Your task to perform on an android device: turn on location history Image 0: 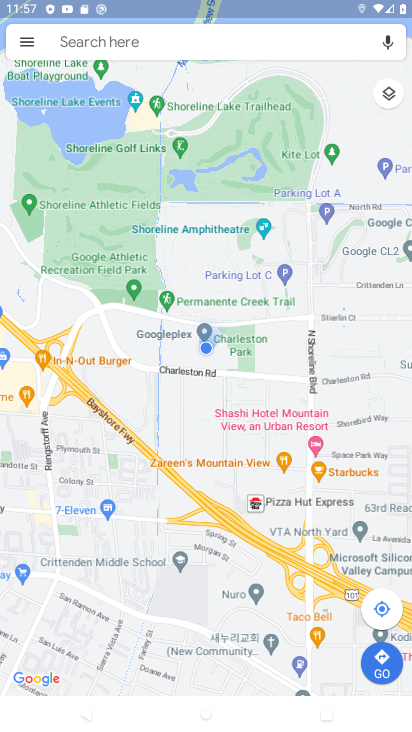
Step 0: press back button
Your task to perform on an android device: turn on location history Image 1: 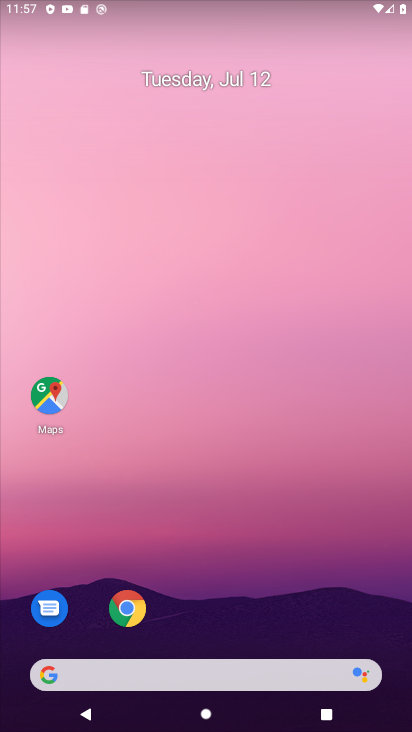
Step 1: drag from (279, 591) to (336, 81)
Your task to perform on an android device: turn on location history Image 2: 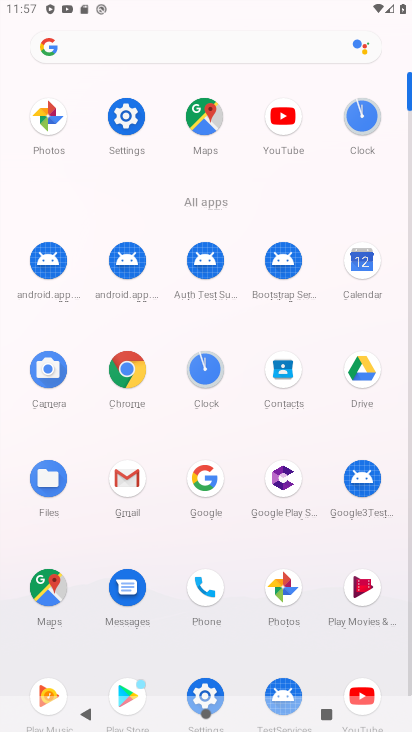
Step 2: click (122, 119)
Your task to perform on an android device: turn on location history Image 3: 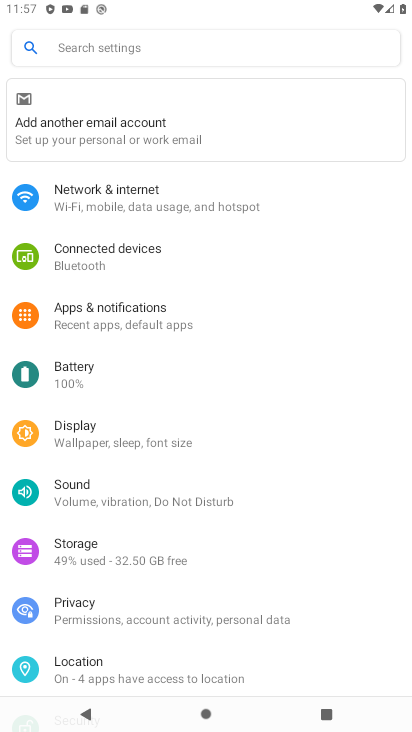
Step 3: click (88, 654)
Your task to perform on an android device: turn on location history Image 4: 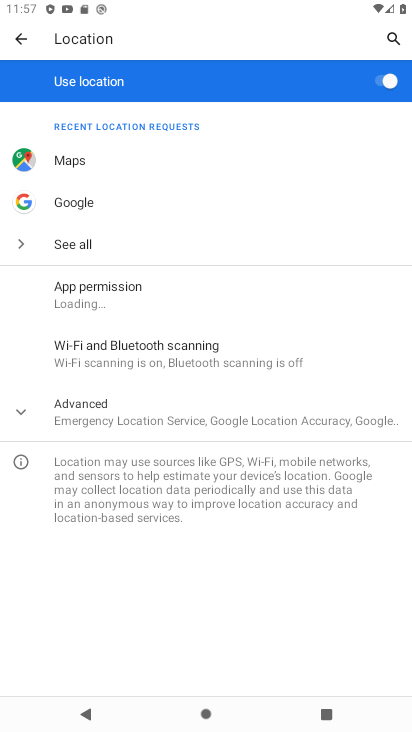
Step 4: click (162, 420)
Your task to perform on an android device: turn on location history Image 5: 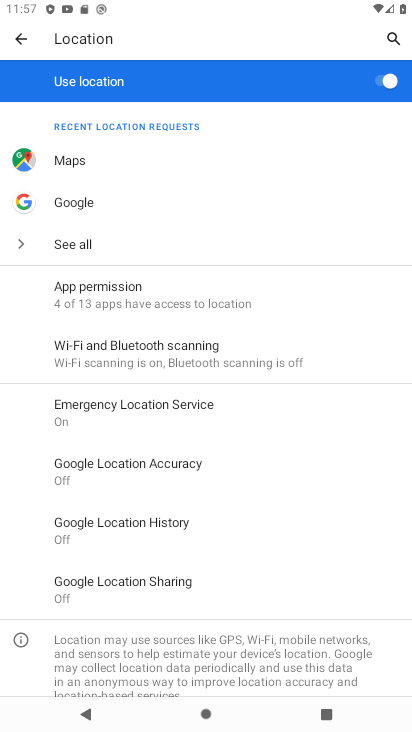
Step 5: click (138, 535)
Your task to perform on an android device: turn on location history Image 6: 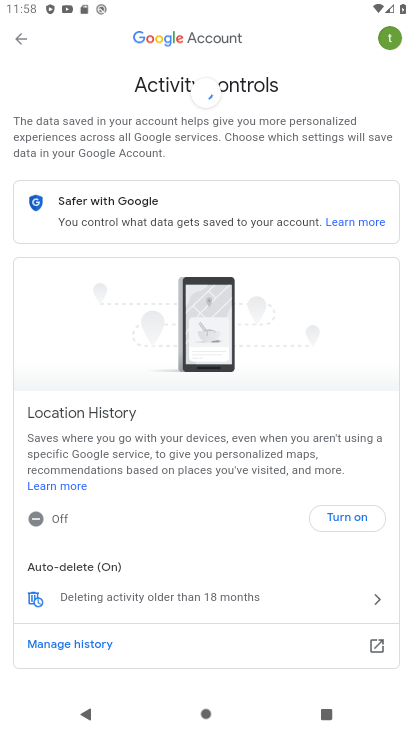
Step 6: click (345, 509)
Your task to perform on an android device: turn on location history Image 7: 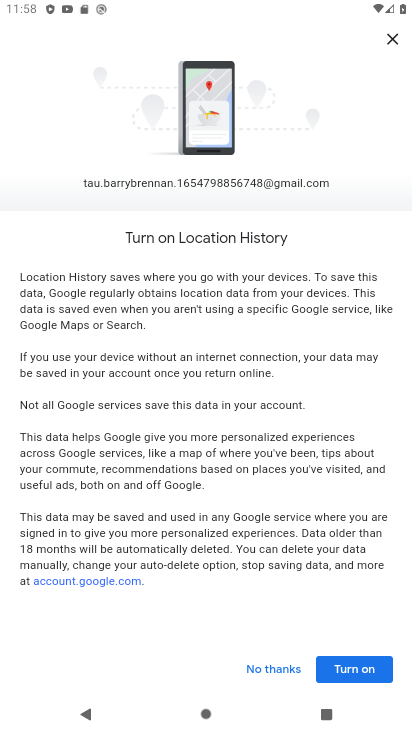
Step 7: click (366, 660)
Your task to perform on an android device: turn on location history Image 8: 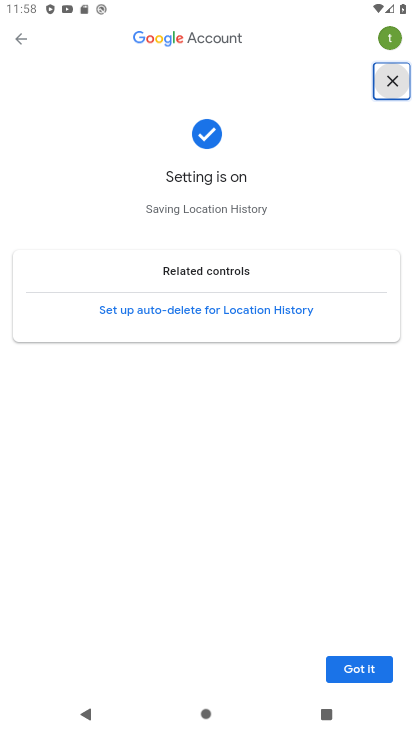
Step 8: task complete